Your task to perform on an android device: Go to battery settings Image 0: 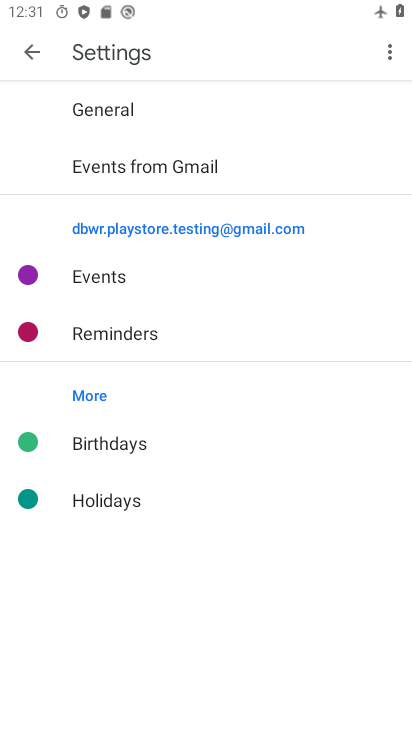
Step 0: press home button
Your task to perform on an android device: Go to battery settings Image 1: 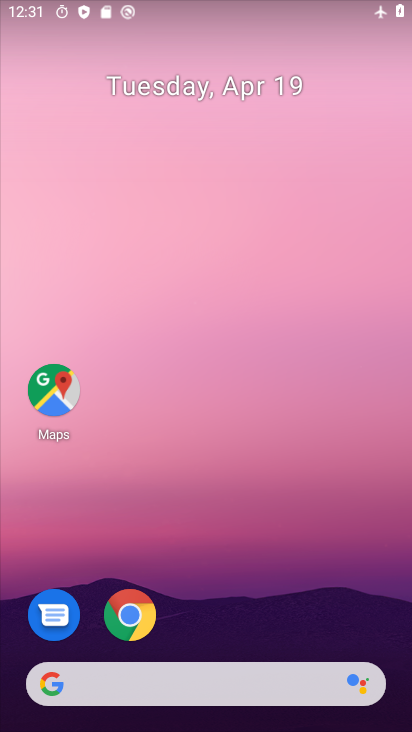
Step 1: drag from (380, 592) to (408, 267)
Your task to perform on an android device: Go to battery settings Image 2: 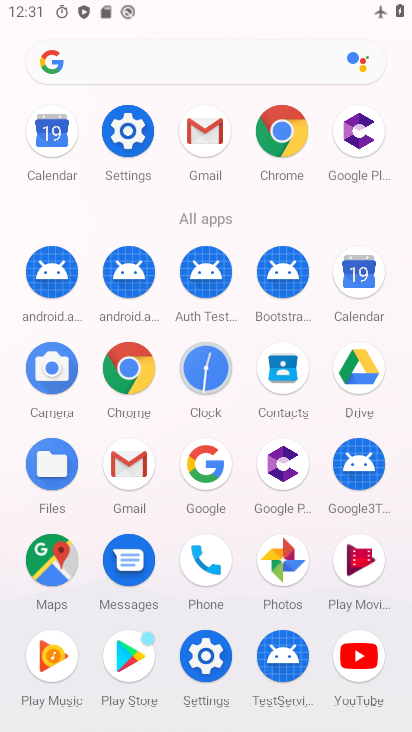
Step 2: click (130, 137)
Your task to perform on an android device: Go to battery settings Image 3: 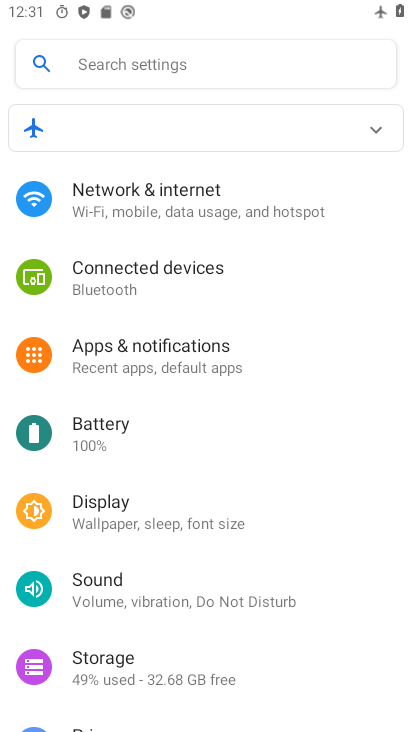
Step 3: drag from (365, 531) to (355, 336)
Your task to perform on an android device: Go to battery settings Image 4: 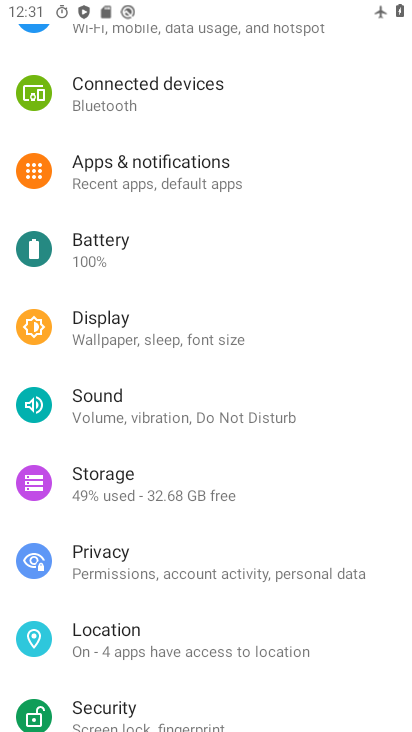
Step 4: drag from (376, 544) to (366, 327)
Your task to perform on an android device: Go to battery settings Image 5: 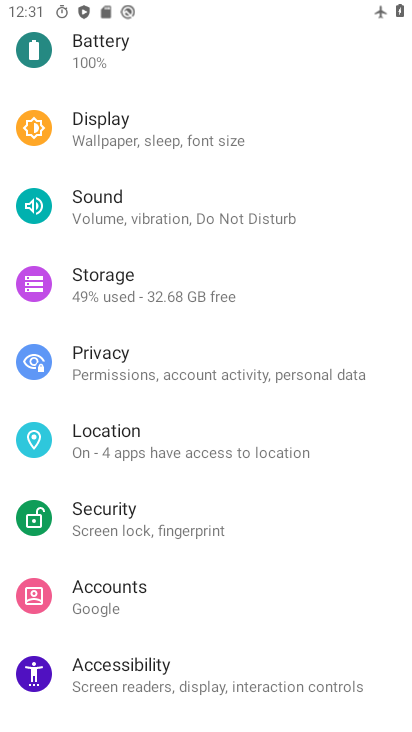
Step 5: drag from (369, 594) to (382, 265)
Your task to perform on an android device: Go to battery settings Image 6: 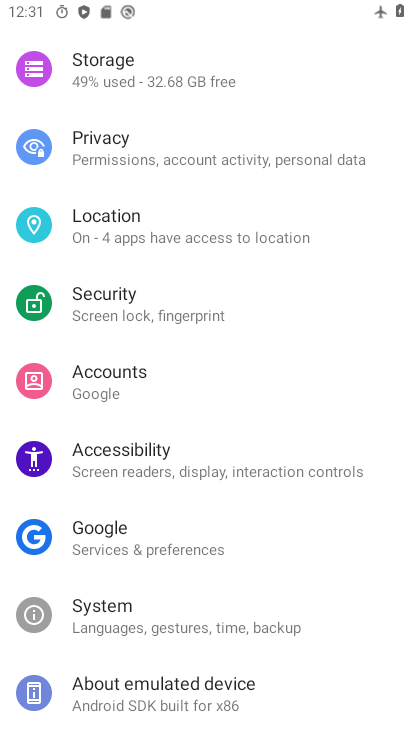
Step 6: drag from (382, 284) to (377, 494)
Your task to perform on an android device: Go to battery settings Image 7: 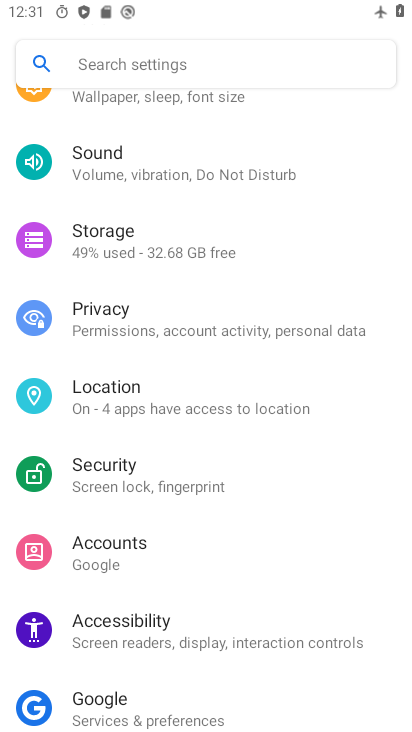
Step 7: drag from (372, 282) to (361, 521)
Your task to perform on an android device: Go to battery settings Image 8: 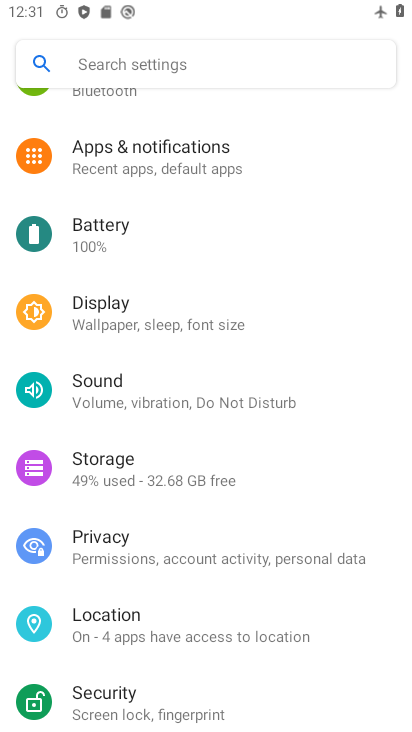
Step 8: drag from (342, 269) to (361, 484)
Your task to perform on an android device: Go to battery settings Image 9: 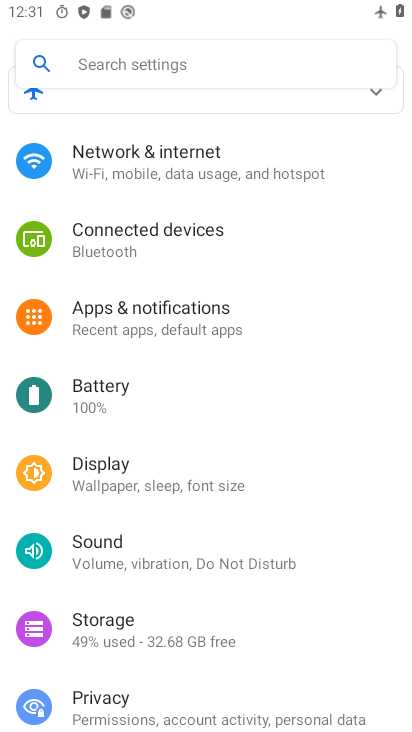
Step 9: click (98, 395)
Your task to perform on an android device: Go to battery settings Image 10: 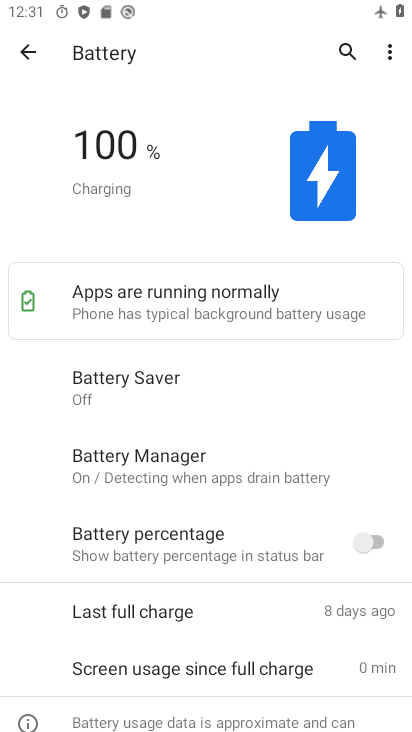
Step 10: task complete